Your task to perform on an android device: Open eBay Image 0: 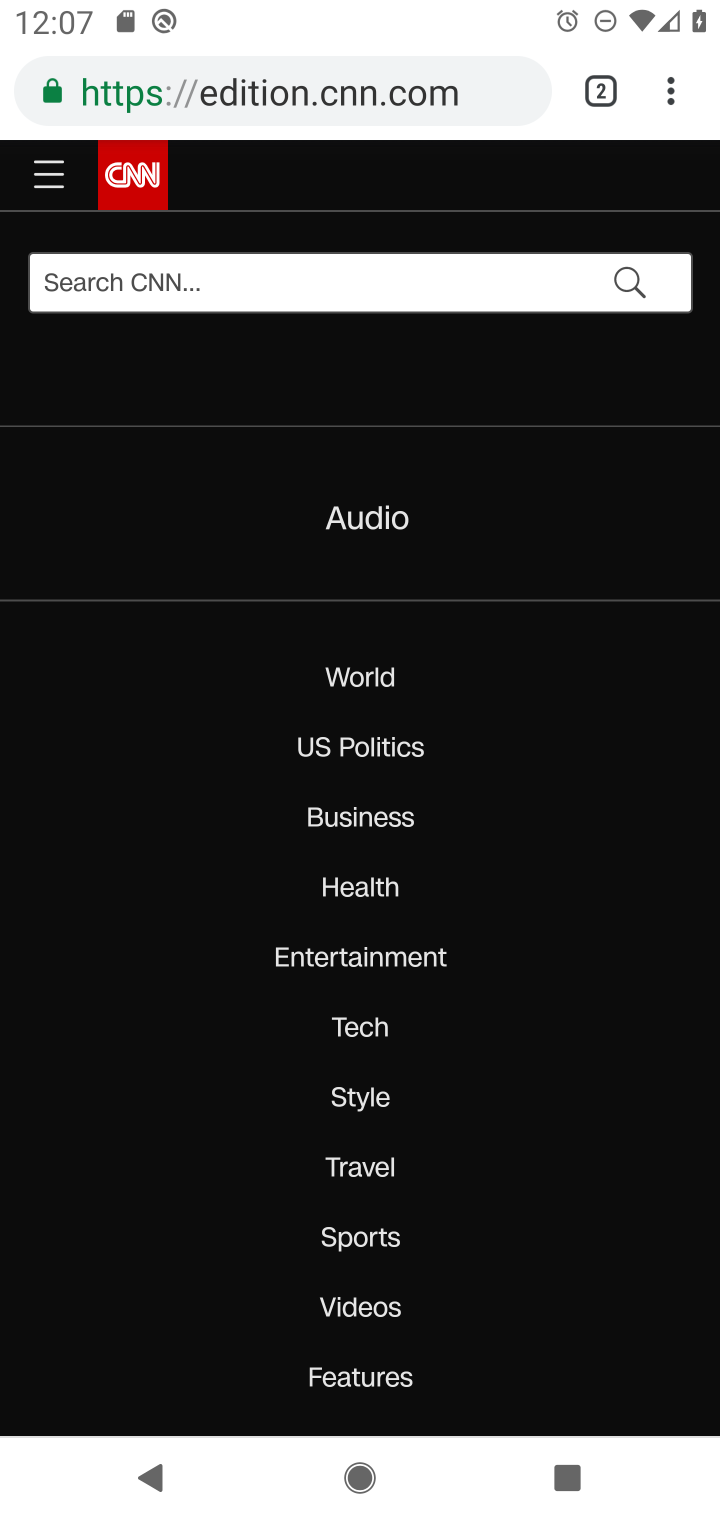
Step 0: press home button
Your task to perform on an android device: Open eBay Image 1: 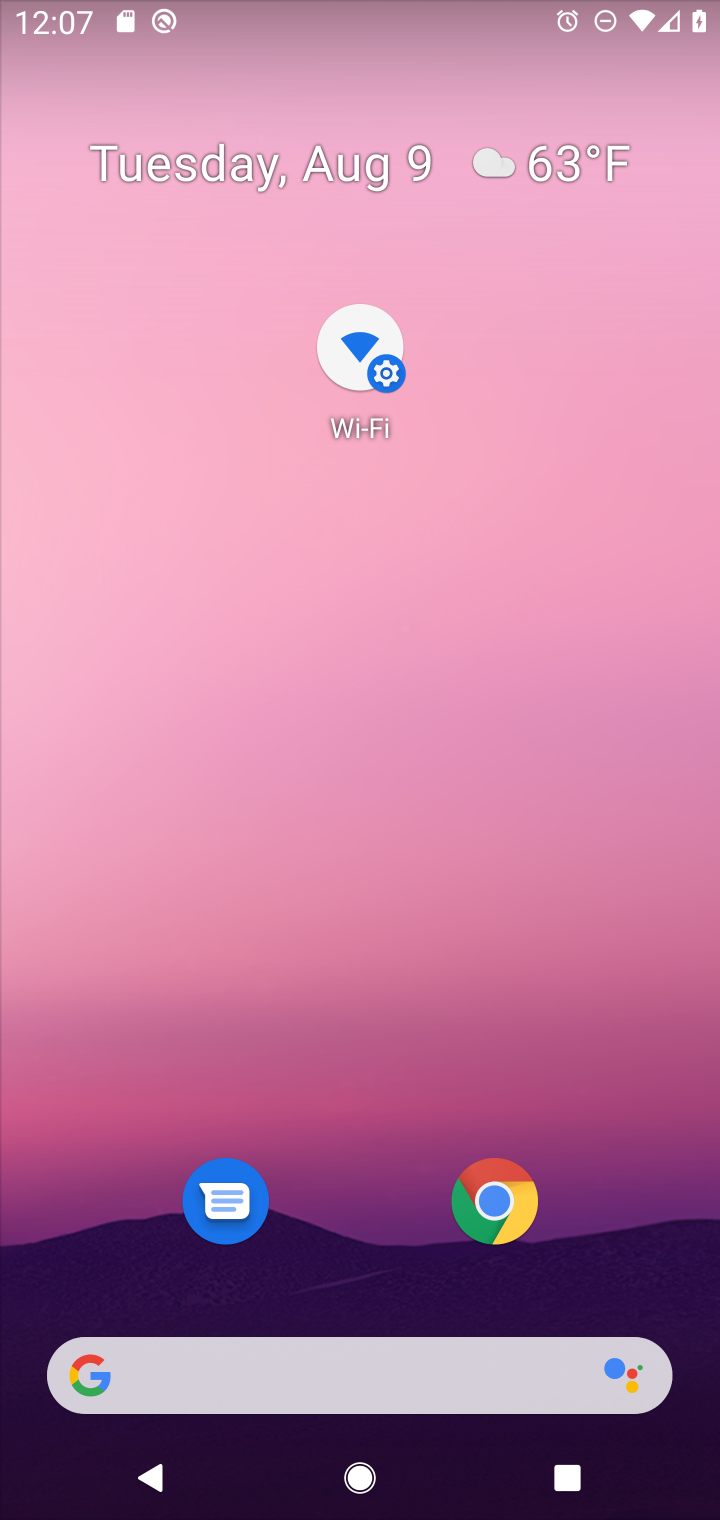
Step 1: drag from (337, 1201) to (689, 182)
Your task to perform on an android device: Open eBay Image 2: 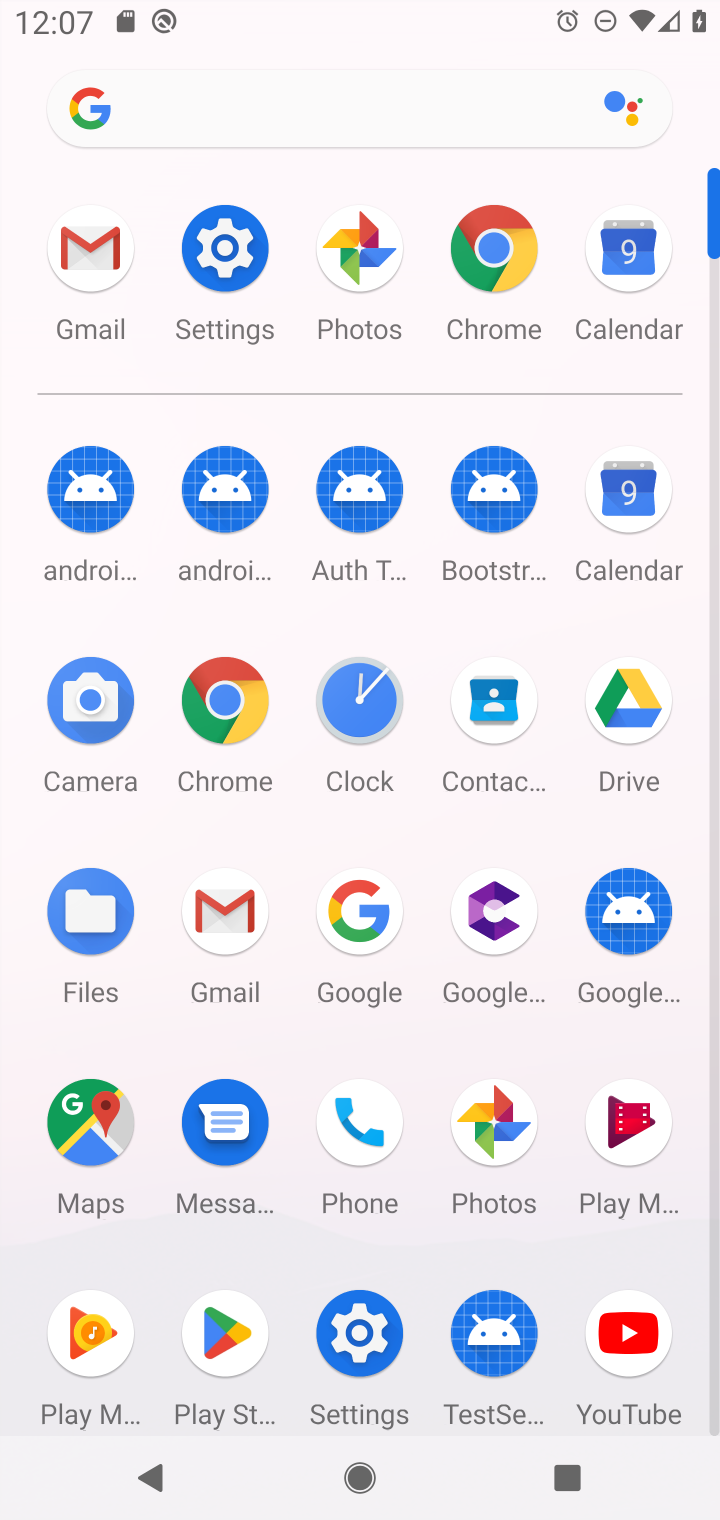
Step 2: click (223, 713)
Your task to perform on an android device: Open eBay Image 3: 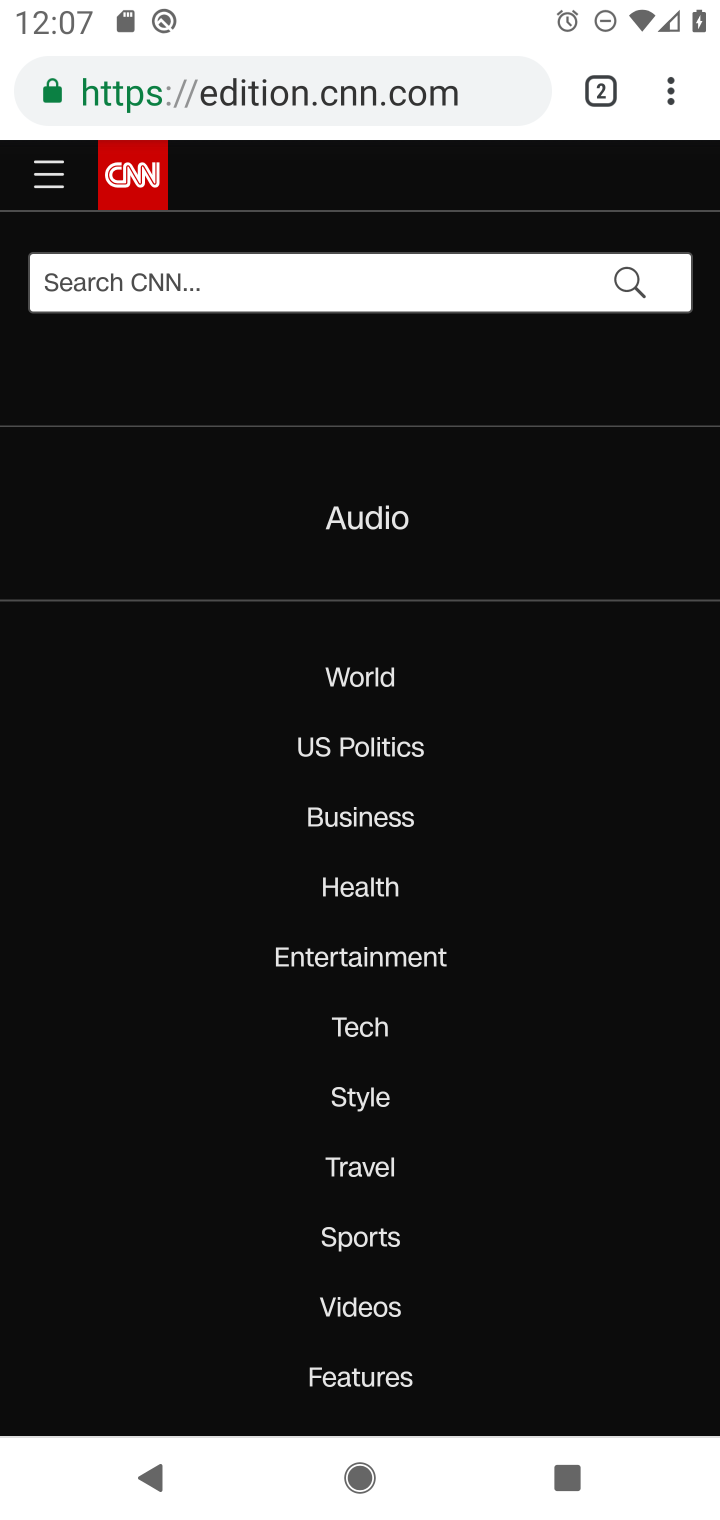
Step 3: click (414, 81)
Your task to perform on an android device: Open eBay Image 4: 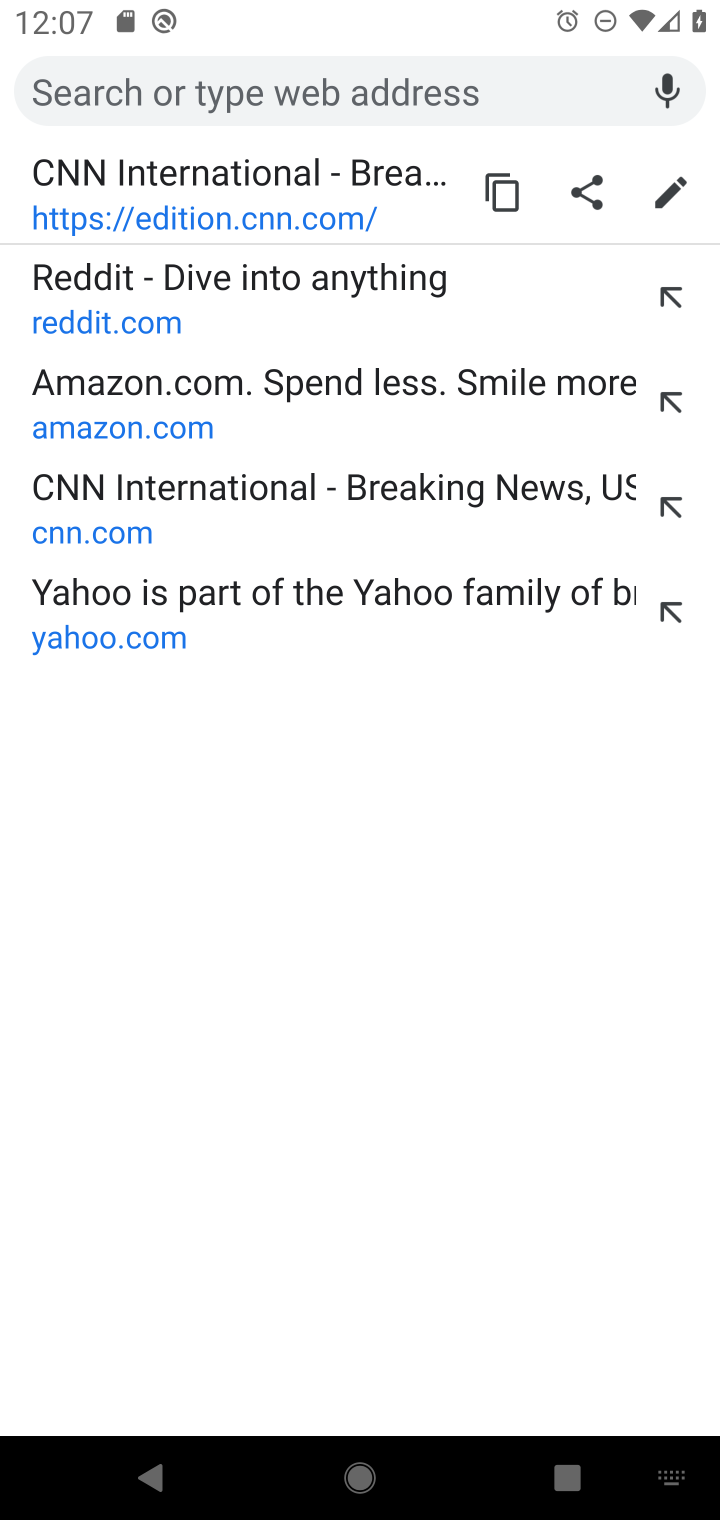
Step 4: type "eabay"
Your task to perform on an android device: Open eBay Image 5: 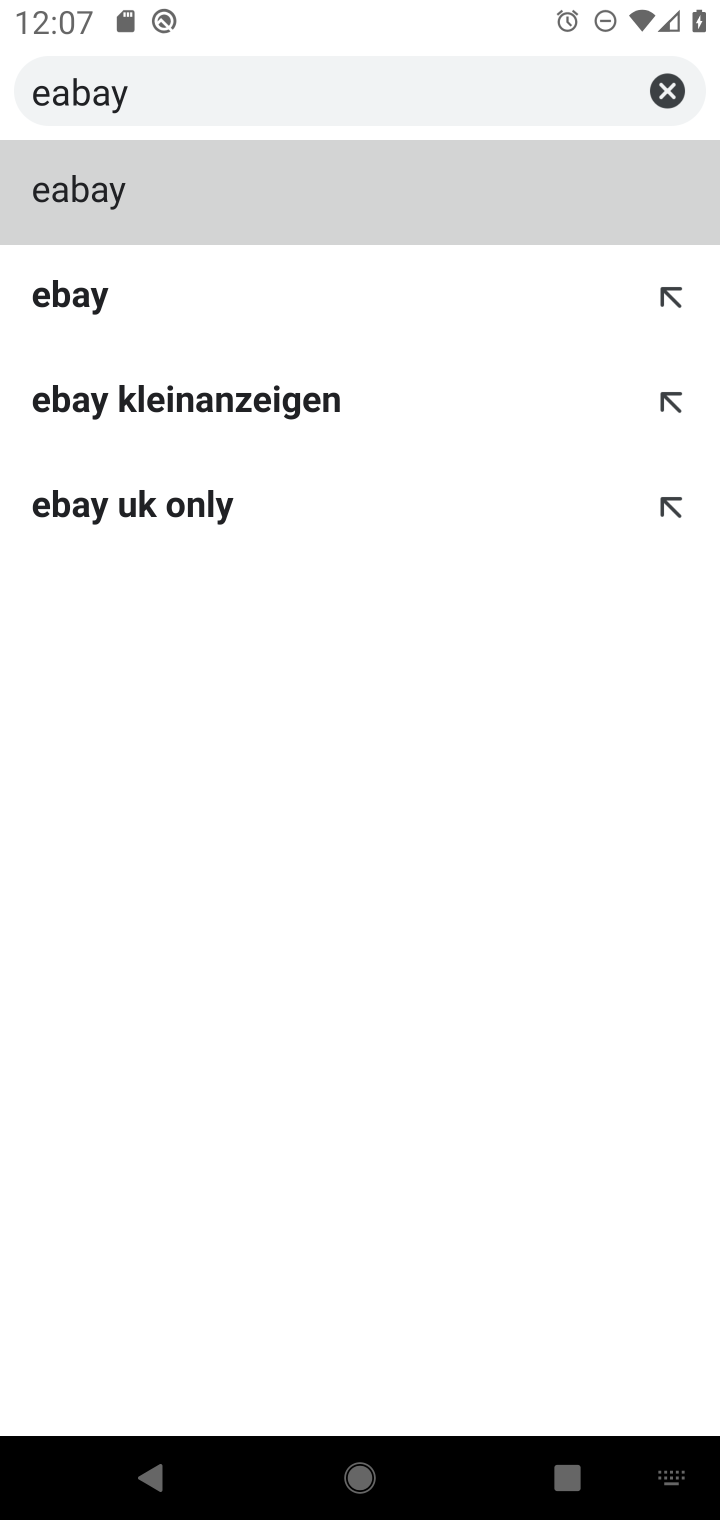
Step 5: click (119, 293)
Your task to perform on an android device: Open eBay Image 6: 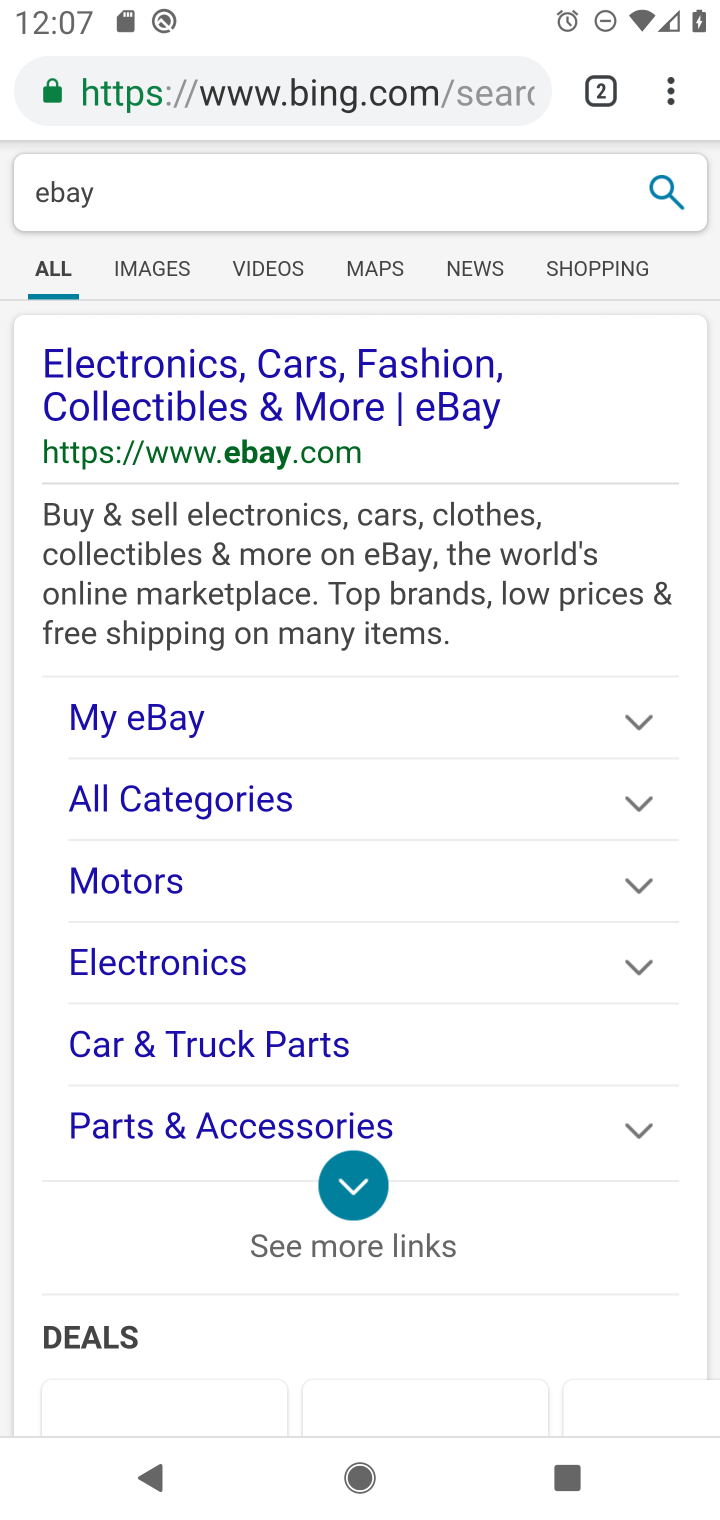
Step 6: task complete